Your task to perform on an android device: Open calendar and show me the first week of next month Image 0: 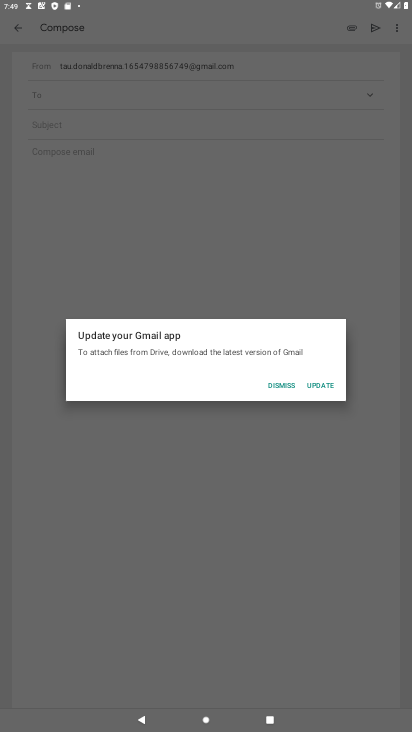
Step 0: press home button
Your task to perform on an android device: Open calendar and show me the first week of next month Image 1: 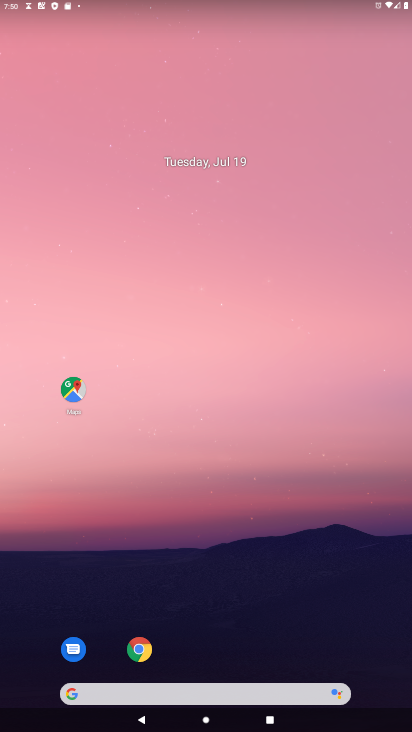
Step 1: drag from (196, 695) to (255, 178)
Your task to perform on an android device: Open calendar and show me the first week of next month Image 2: 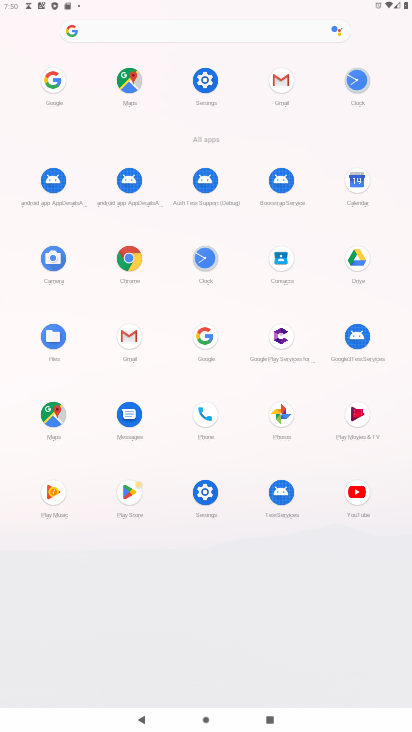
Step 2: click (356, 178)
Your task to perform on an android device: Open calendar and show me the first week of next month Image 3: 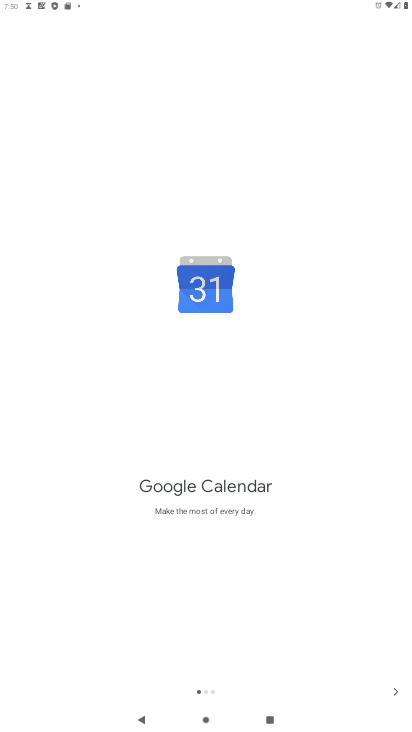
Step 3: click (396, 691)
Your task to perform on an android device: Open calendar and show me the first week of next month Image 4: 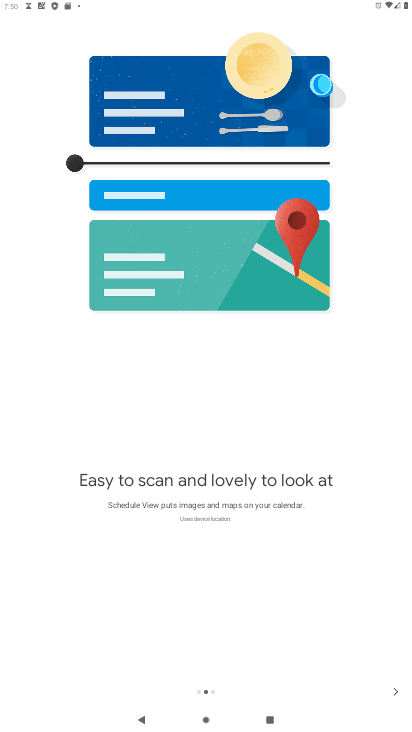
Step 4: click (395, 692)
Your task to perform on an android device: Open calendar and show me the first week of next month Image 5: 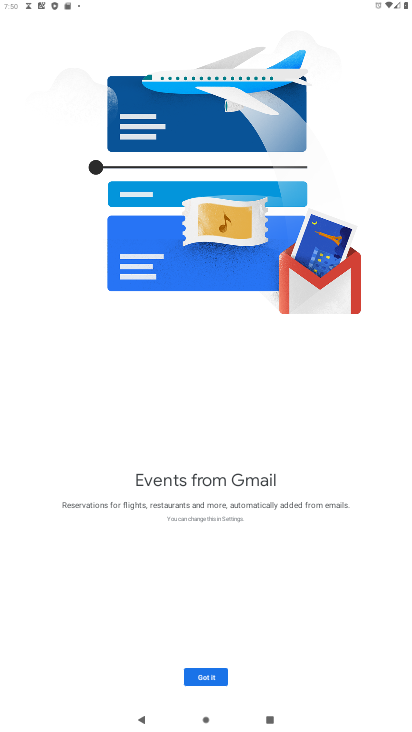
Step 5: click (210, 677)
Your task to perform on an android device: Open calendar and show me the first week of next month Image 6: 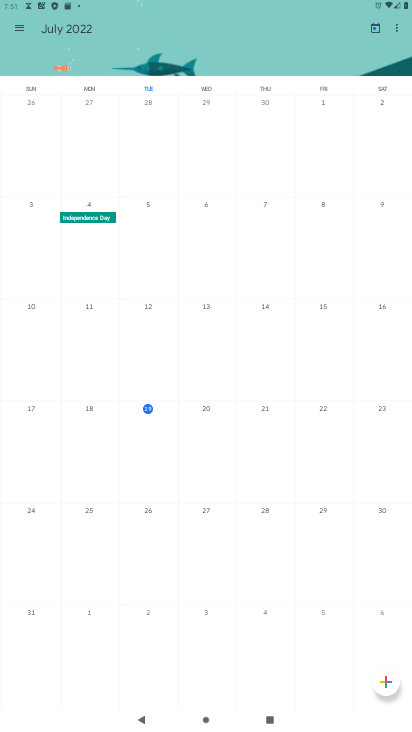
Step 6: drag from (317, 452) to (13, 465)
Your task to perform on an android device: Open calendar and show me the first week of next month Image 7: 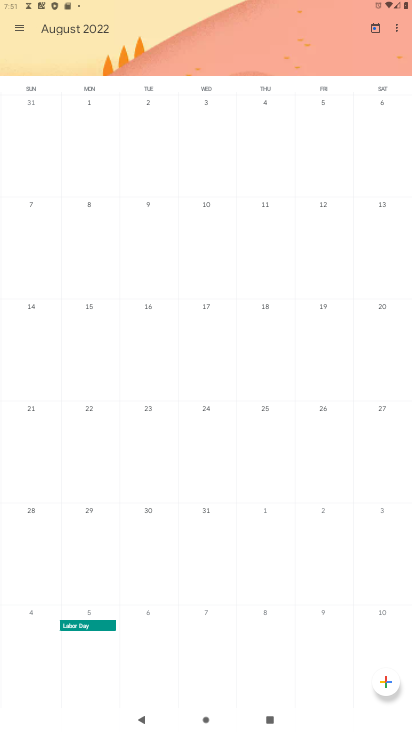
Step 7: click (83, 130)
Your task to perform on an android device: Open calendar and show me the first week of next month Image 8: 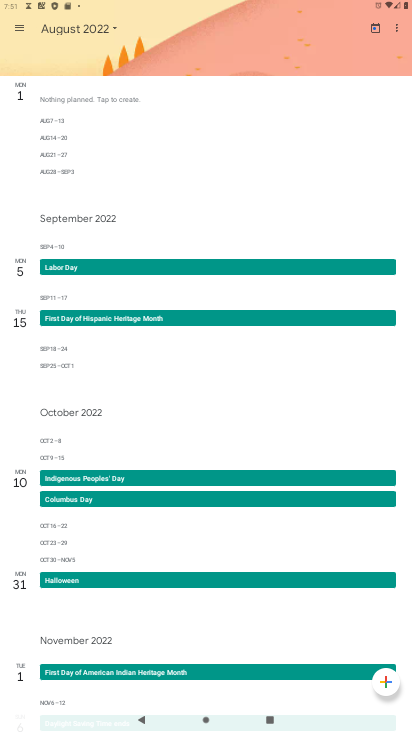
Step 8: click (21, 23)
Your task to perform on an android device: Open calendar and show me the first week of next month Image 9: 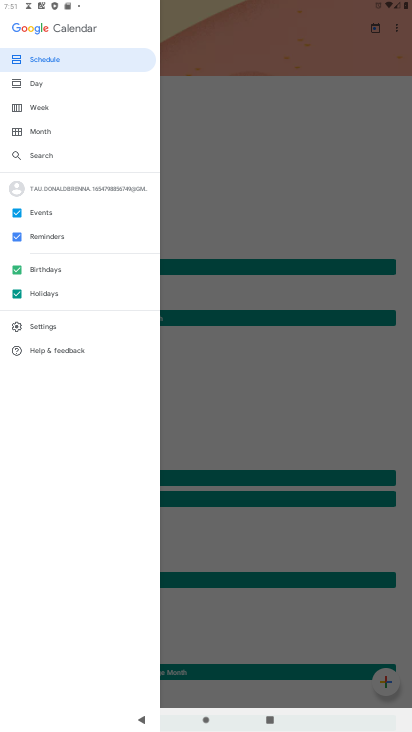
Step 9: click (21, 57)
Your task to perform on an android device: Open calendar and show me the first week of next month Image 10: 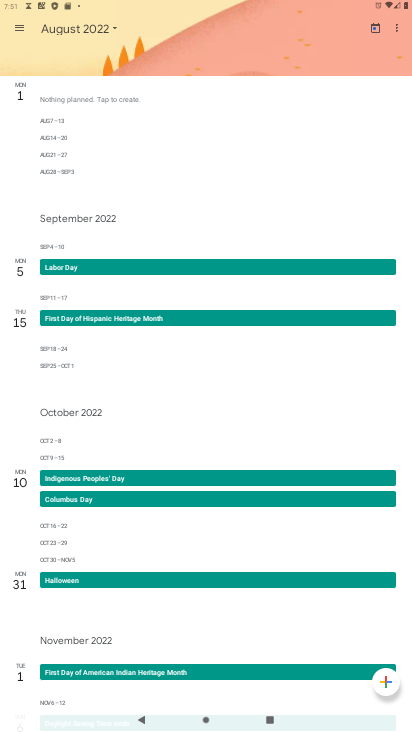
Step 10: task complete